Your task to perform on an android device: turn off location Image 0: 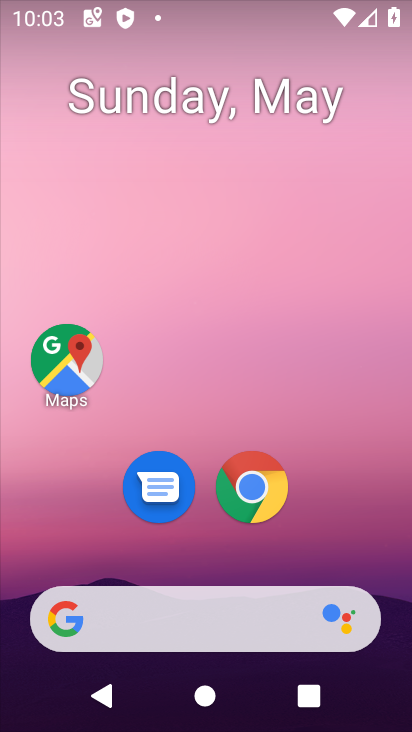
Step 0: drag from (369, 544) to (367, 132)
Your task to perform on an android device: turn off location Image 1: 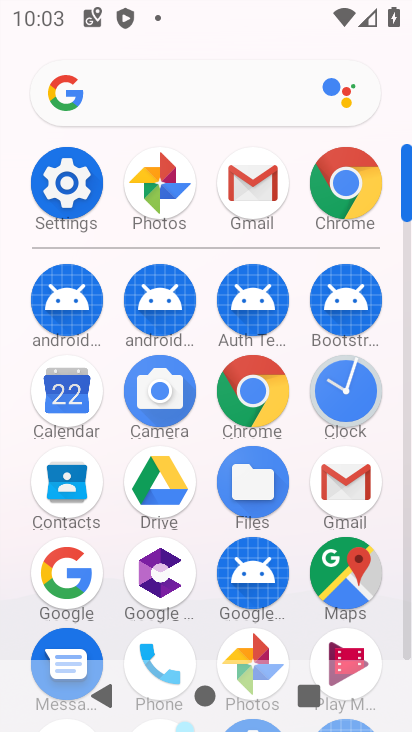
Step 1: click (78, 166)
Your task to perform on an android device: turn off location Image 2: 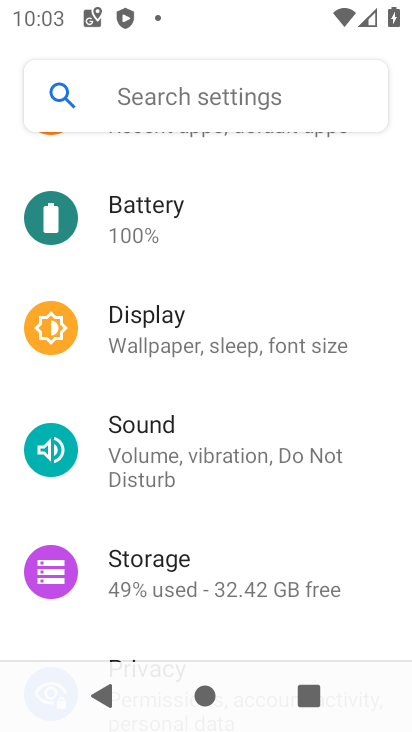
Step 2: drag from (376, 549) to (359, 397)
Your task to perform on an android device: turn off location Image 3: 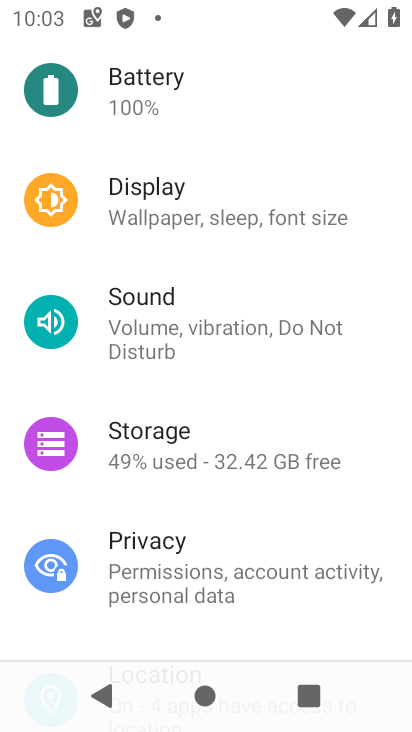
Step 3: drag from (342, 575) to (351, 415)
Your task to perform on an android device: turn off location Image 4: 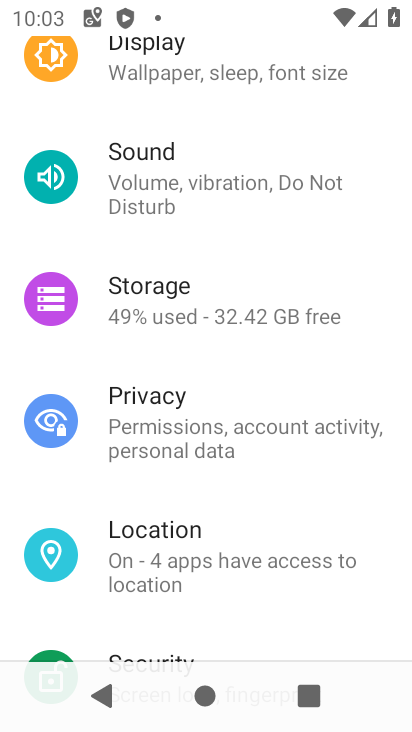
Step 4: drag from (342, 601) to (340, 511)
Your task to perform on an android device: turn off location Image 5: 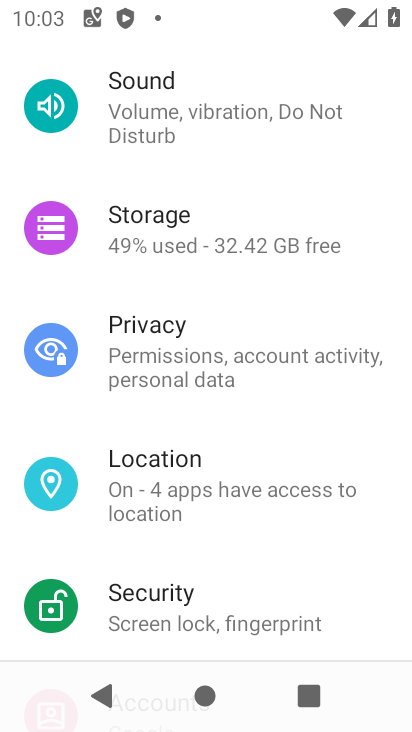
Step 5: drag from (342, 611) to (327, 479)
Your task to perform on an android device: turn off location Image 6: 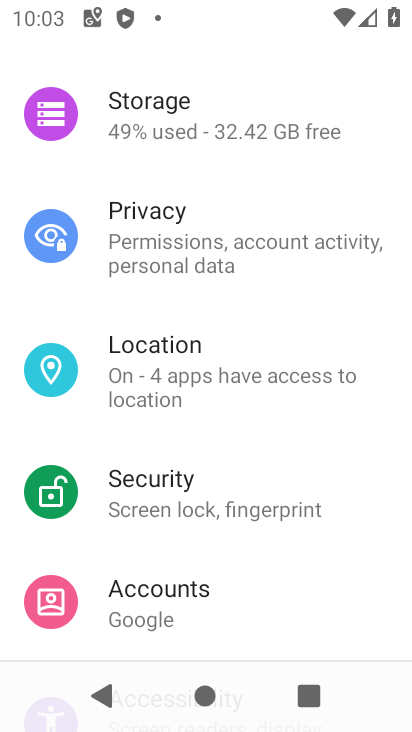
Step 6: click (224, 383)
Your task to perform on an android device: turn off location Image 7: 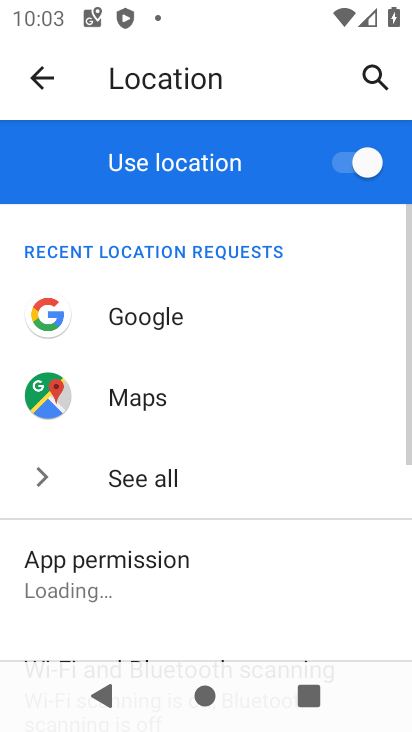
Step 7: drag from (328, 530) to (328, 410)
Your task to perform on an android device: turn off location Image 8: 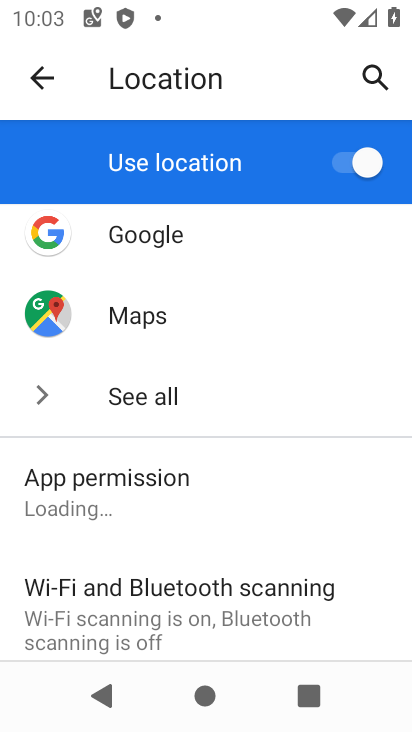
Step 8: drag from (323, 570) to (328, 437)
Your task to perform on an android device: turn off location Image 9: 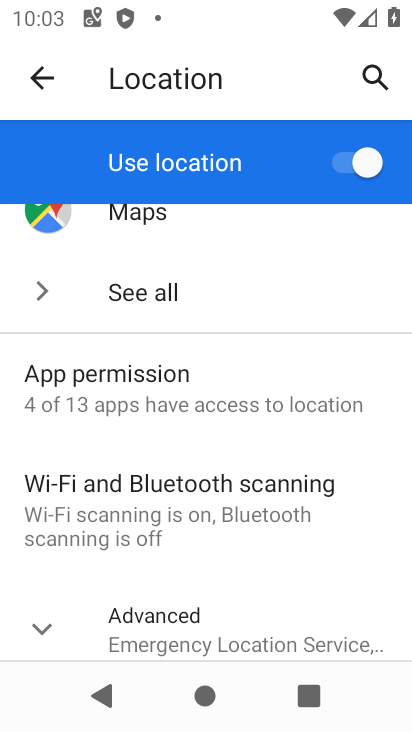
Step 9: drag from (352, 566) to (338, 399)
Your task to perform on an android device: turn off location Image 10: 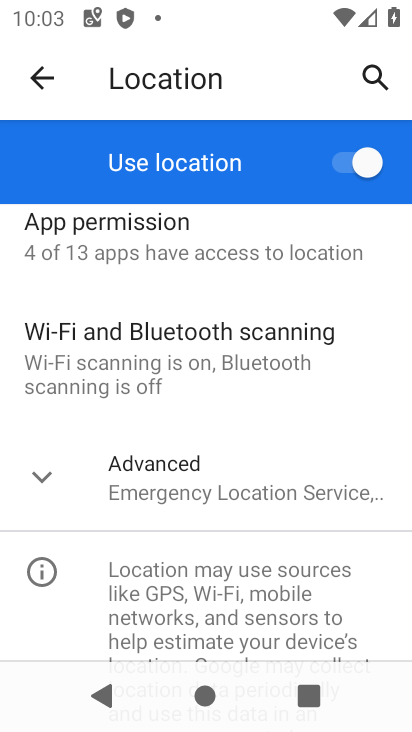
Step 10: drag from (363, 573) to (356, 397)
Your task to perform on an android device: turn off location Image 11: 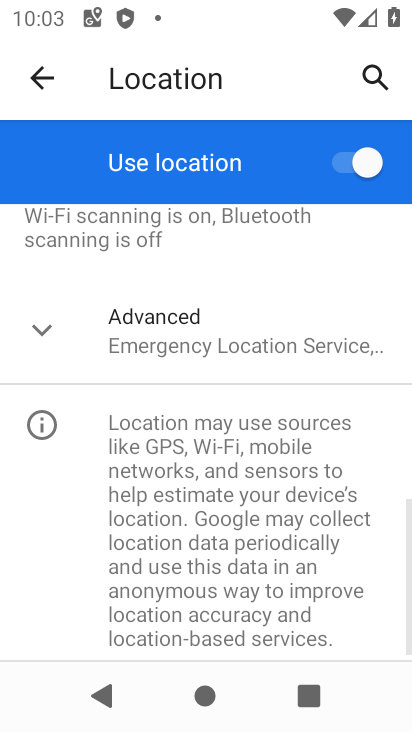
Step 11: drag from (356, 309) to (371, 483)
Your task to perform on an android device: turn off location Image 12: 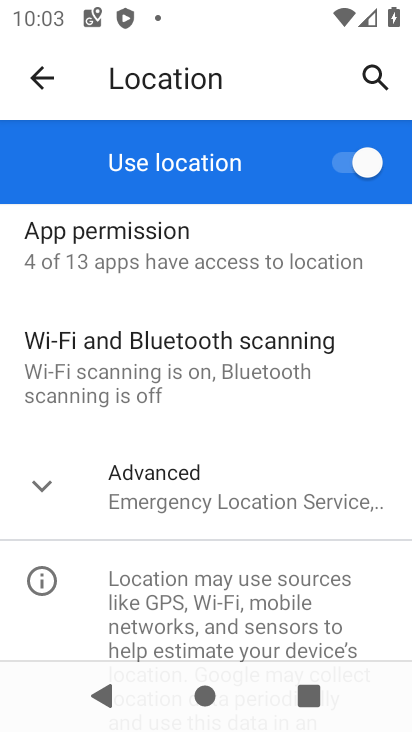
Step 12: drag from (354, 308) to (353, 463)
Your task to perform on an android device: turn off location Image 13: 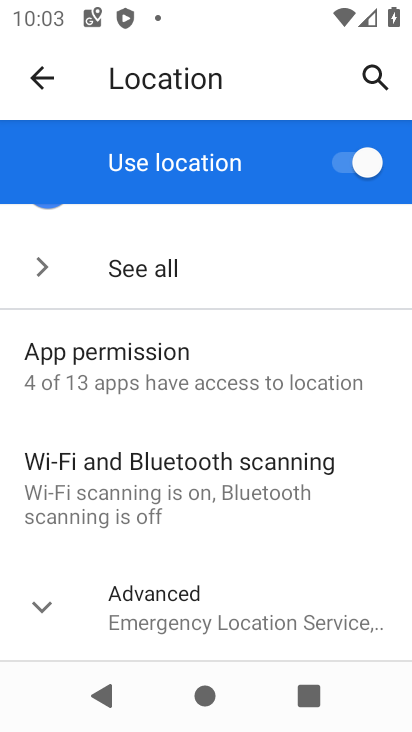
Step 13: click (345, 174)
Your task to perform on an android device: turn off location Image 14: 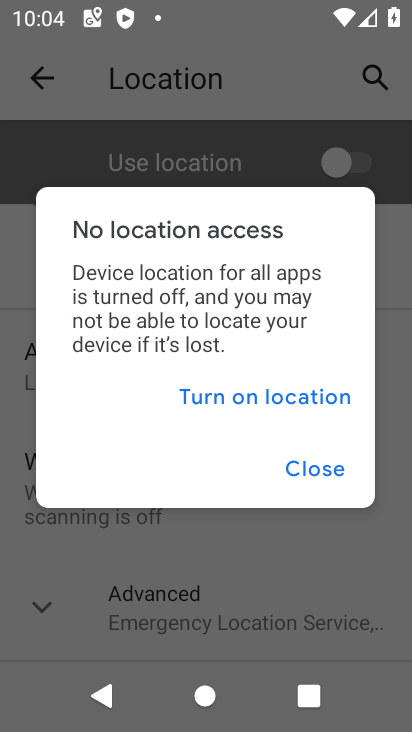
Step 14: task complete